Your task to perform on an android device: What's on my calendar today? Image 0: 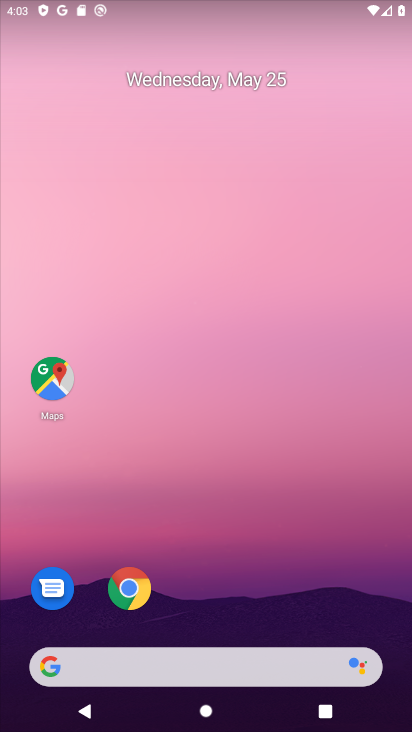
Step 0: drag from (266, 619) to (250, 276)
Your task to perform on an android device: What's on my calendar today? Image 1: 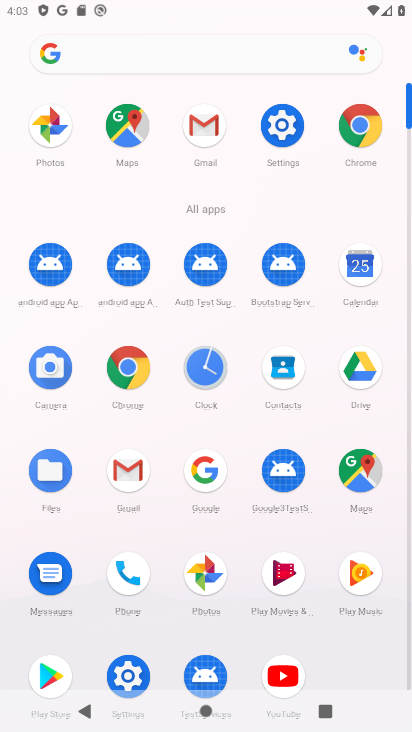
Step 1: click (363, 267)
Your task to perform on an android device: What's on my calendar today? Image 2: 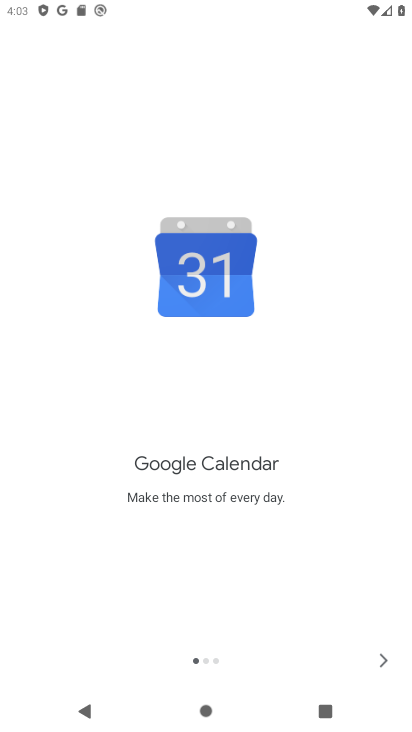
Step 2: click (395, 664)
Your task to perform on an android device: What's on my calendar today? Image 3: 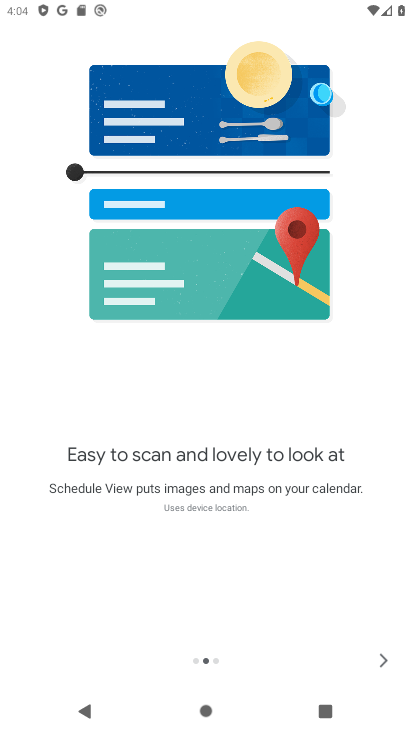
Step 3: click (395, 664)
Your task to perform on an android device: What's on my calendar today? Image 4: 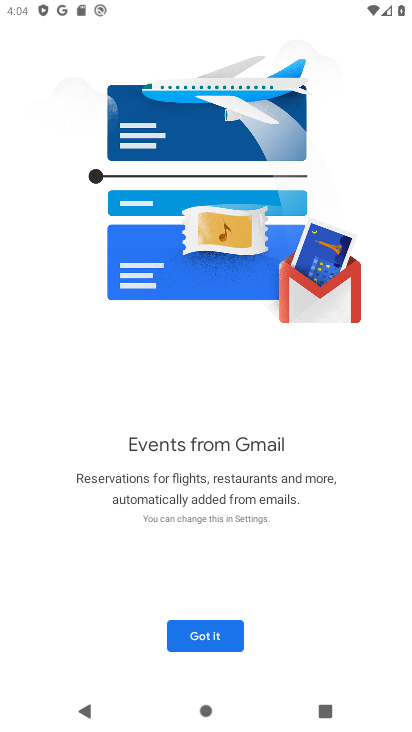
Step 4: click (216, 635)
Your task to perform on an android device: What's on my calendar today? Image 5: 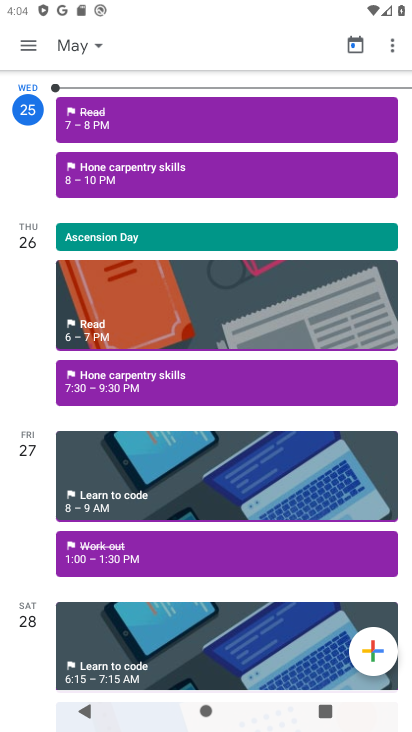
Step 5: task complete